Your task to perform on an android device: Set the phone to "Do not disturb". Image 0: 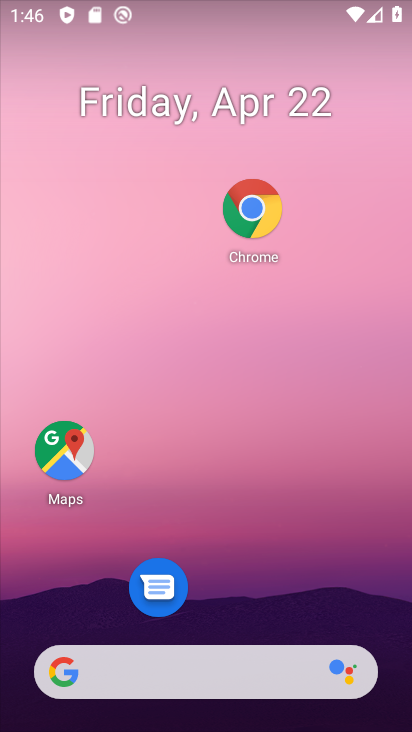
Step 0: drag from (208, 238) to (169, 0)
Your task to perform on an android device: Set the phone to "Do not disturb". Image 1: 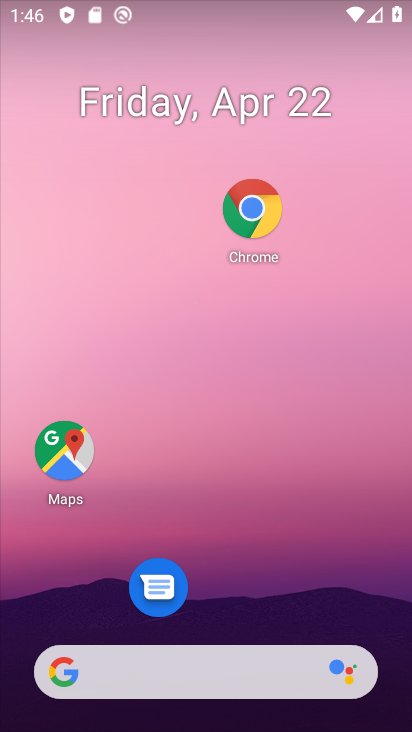
Step 1: drag from (227, 614) to (252, 94)
Your task to perform on an android device: Set the phone to "Do not disturb". Image 2: 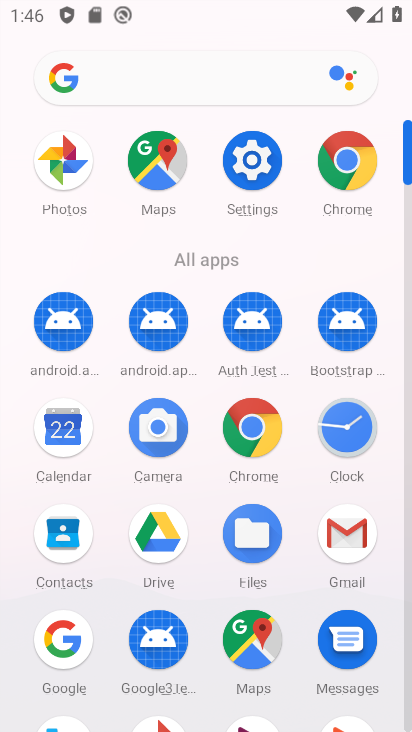
Step 2: click (245, 168)
Your task to perform on an android device: Set the phone to "Do not disturb". Image 3: 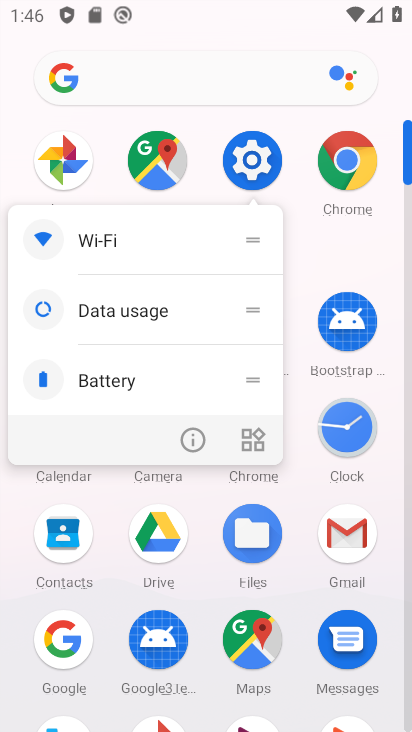
Step 3: click (196, 442)
Your task to perform on an android device: Set the phone to "Do not disturb". Image 4: 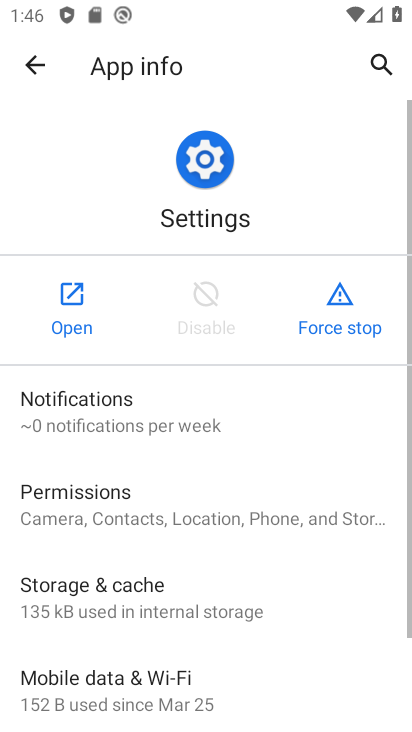
Step 4: click (72, 319)
Your task to perform on an android device: Set the phone to "Do not disturb". Image 5: 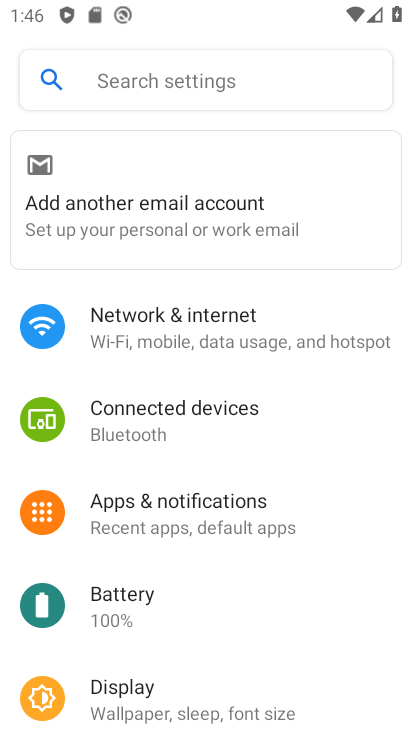
Step 5: drag from (226, 561) to (230, 265)
Your task to perform on an android device: Set the phone to "Do not disturb". Image 6: 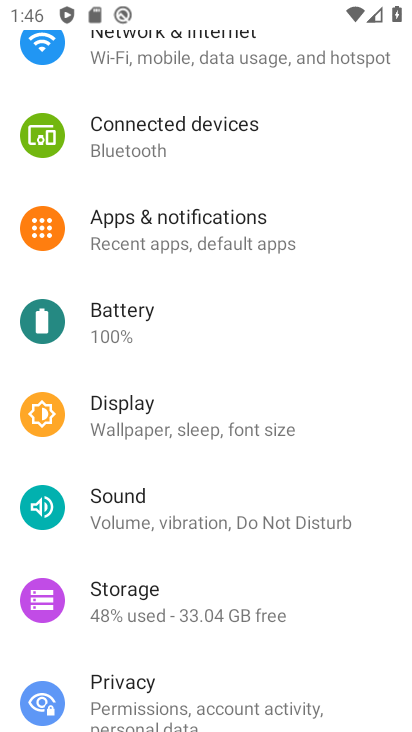
Step 6: click (216, 222)
Your task to perform on an android device: Set the phone to "Do not disturb". Image 7: 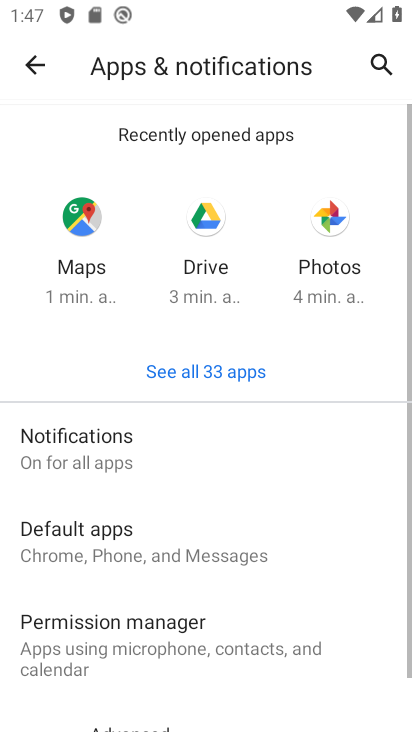
Step 7: drag from (232, 468) to (210, 188)
Your task to perform on an android device: Set the phone to "Do not disturb". Image 8: 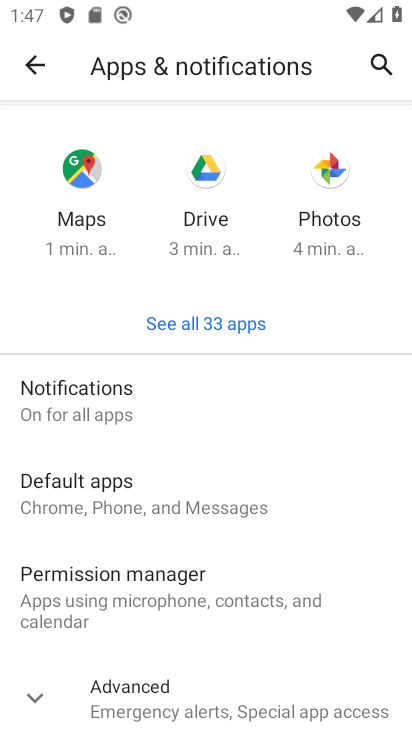
Step 8: click (118, 406)
Your task to perform on an android device: Set the phone to "Do not disturb". Image 9: 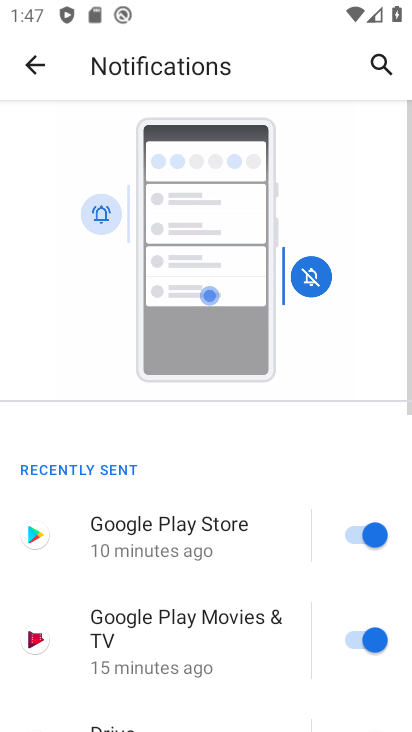
Step 9: drag from (227, 588) to (227, 147)
Your task to perform on an android device: Set the phone to "Do not disturb". Image 10: 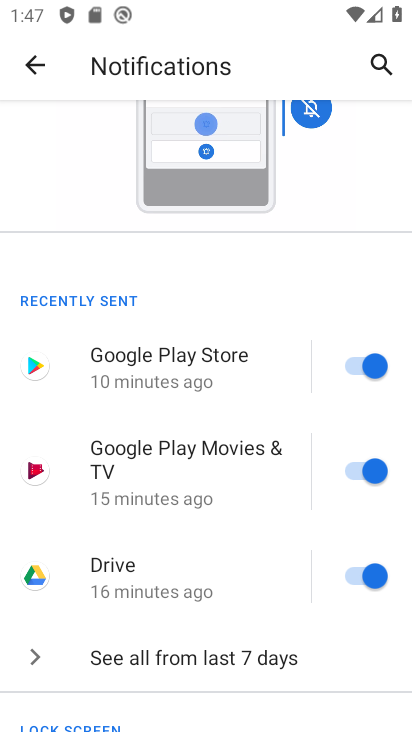
Step 10: drag from (201, 583) to (201, 127)
Your task to perform on an android device: Set the phone to "Do not disturb". Image 11: 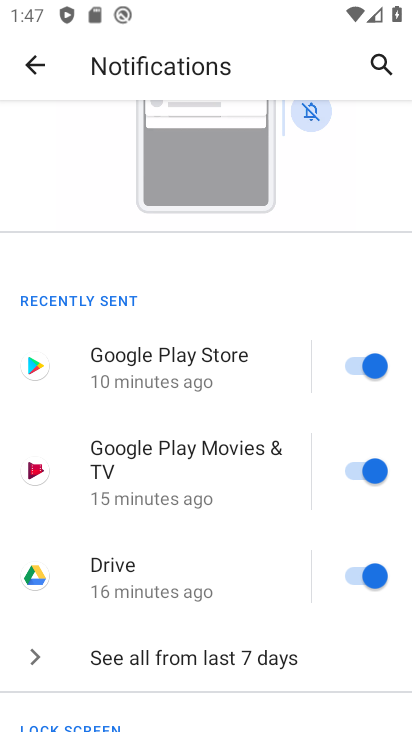
Step 11: drag from (242, 605) to (278, 111)
Your task to perform on an android device: Set the phone to "Do not disturb". Image 12: 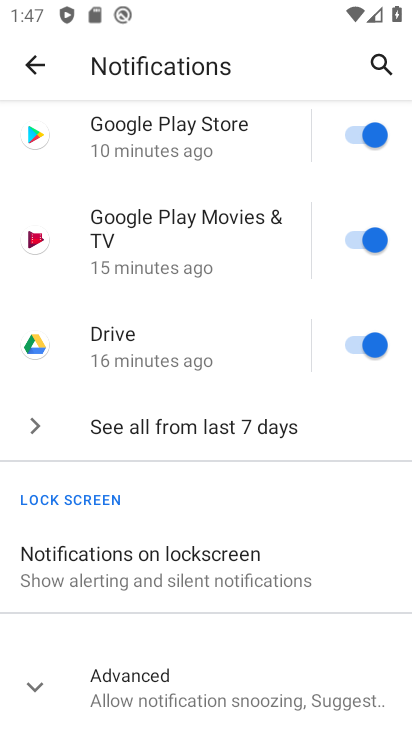
Step 12: drag from (217, 669) to (286, 215)
Your task to perform on an android device: Set the phone to "Do not disturb". Image 13: 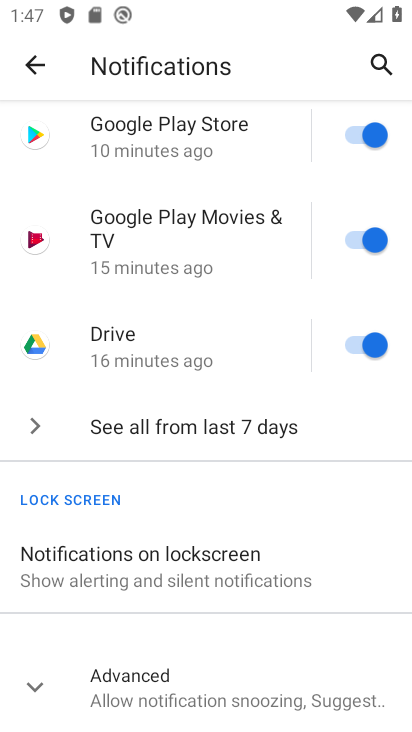
Step 13: click (168, 679)
Your task to perform on an android device: Set the phone to "Do not disturb". Image 14: 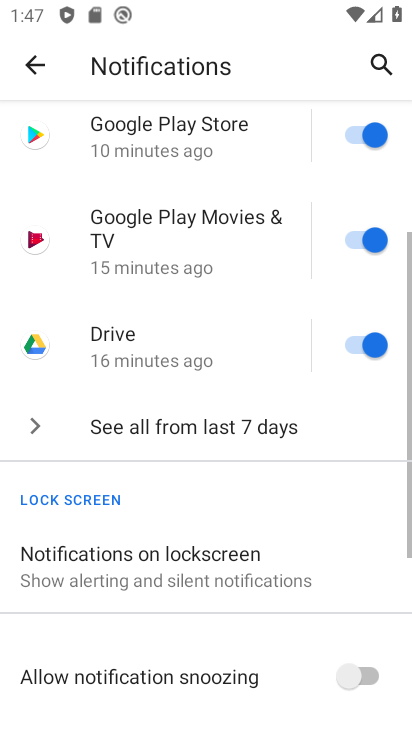
Step 14: drag from (168, 679) to (207, 74)
Your task to perform on an android device: Set the phone to "Do not disturb". Image 15: 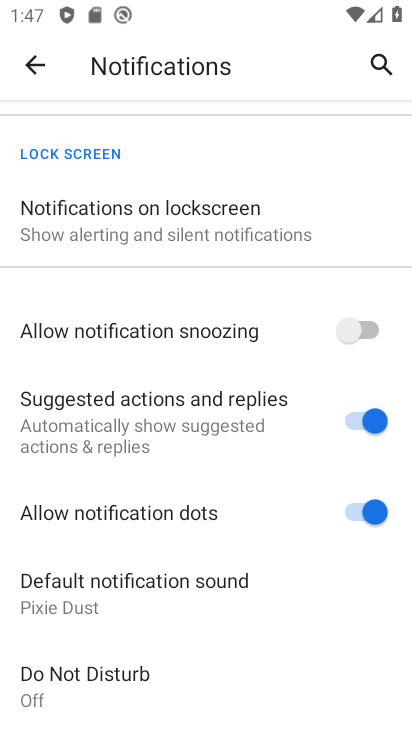
Step 15: click (129, 677)
Your task to perform on an android device: Set the phone to "Do not disturb". Image 16: 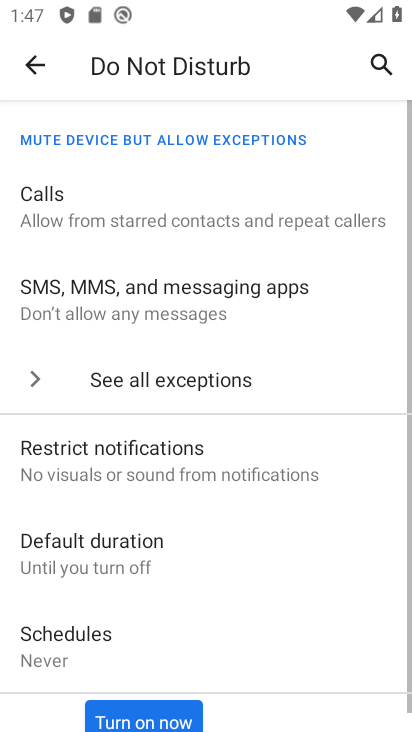
Step 16: drag from (140, 633) to (197, 211)
Your task to perform on an android device: Set the phone to "Do not disturb". Image 17: 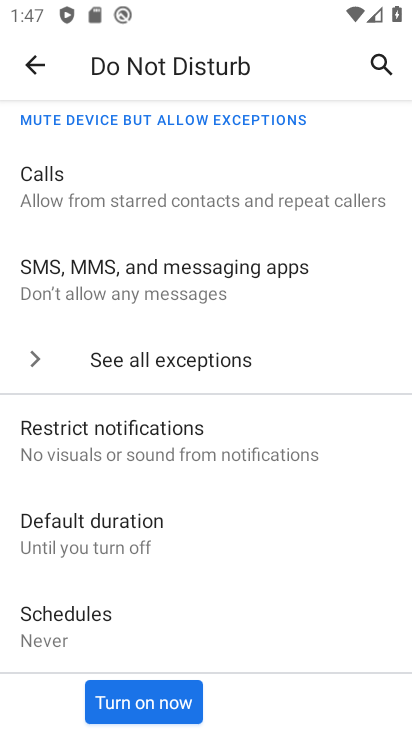
Step 17: click (146, 685)
Your task to perform on an android device: Set the phone to "Do not disturb". Image 18: 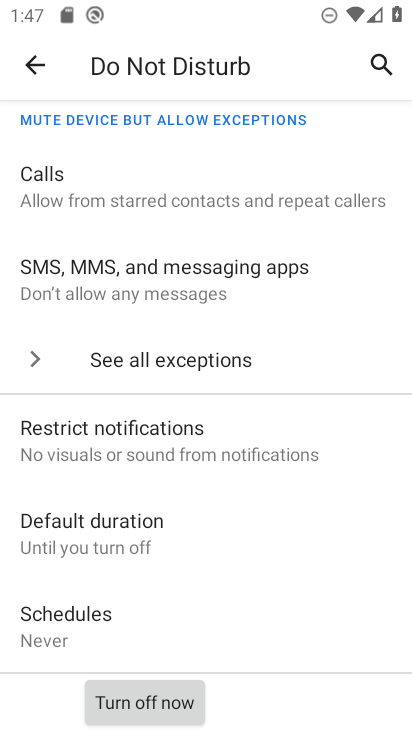
Step 18: drag from (254, 585) to (254, 232)
Your task to perform on an android device: Set the phone to "Do not disturb". Image 19: 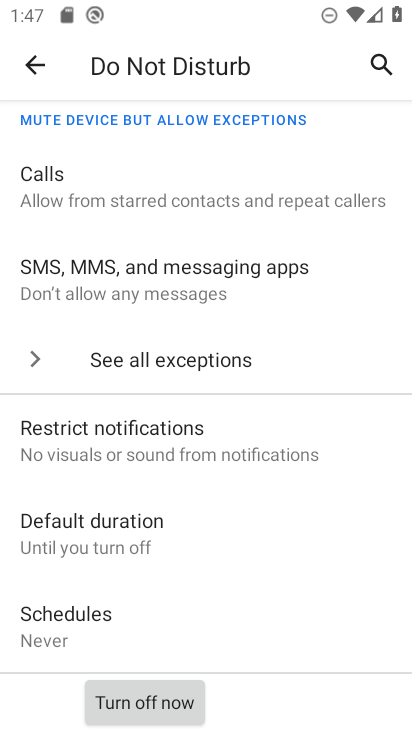
Step 19: click (124, 708)
Your task to perform on an android device: Set the phone to "Do not disturb". Image 20: 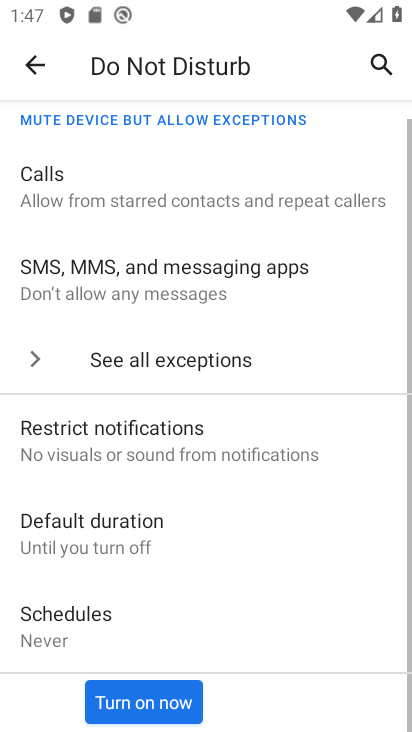
Step 20: task complete